Your task to perform on an android device: Open Google Chrome and open the bookmarks view Image 0: 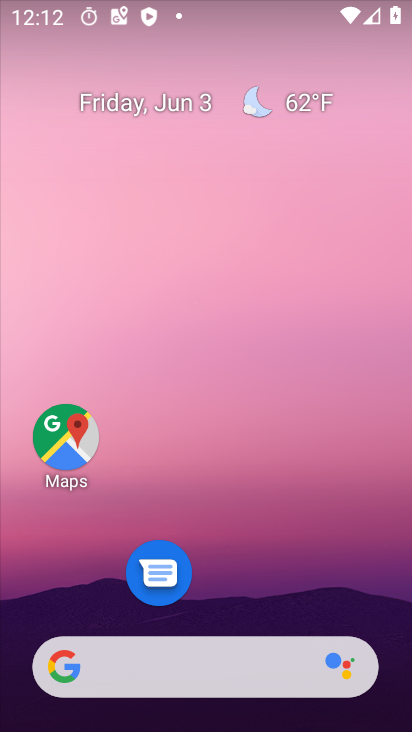
Step 0: drag from (291, 679) to (353, 142)
Your task to perform on an android device: Open Google Chrome and open the bookmarks view Image 1: 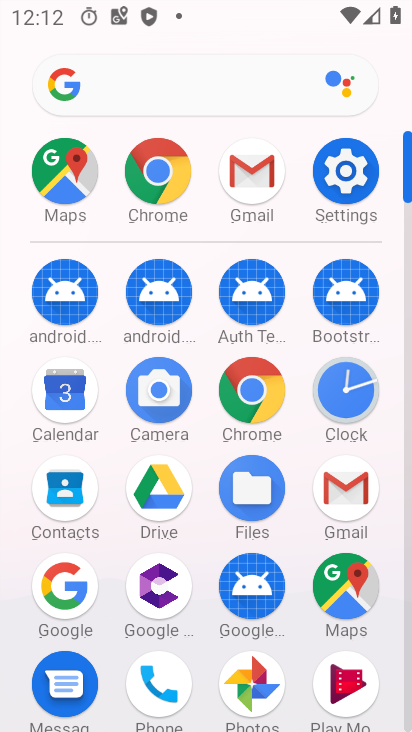
Step 1: click (256, 390)
Your task to perform on an android device: Open Google Chrome and open the bookmarks view Image 2: 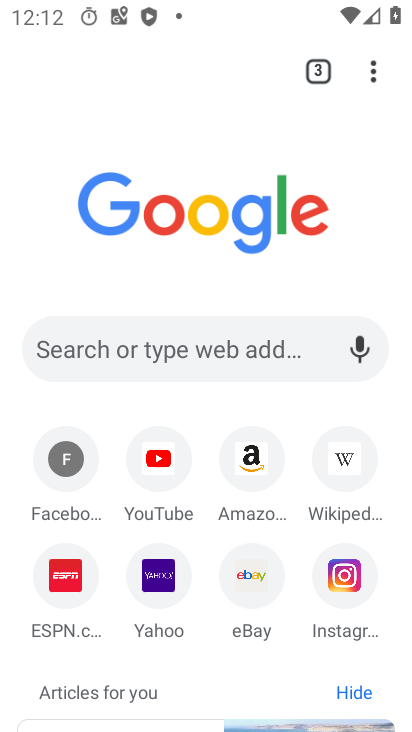
Step 2: task complete